Your task to perform on an android device: Open Reddit.com Image 0: 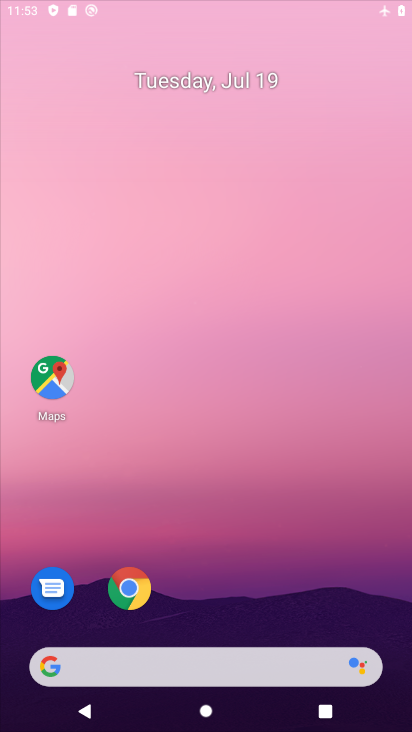
Step 0: click (223, 66)
Your task to perform on an android device: Open Reddit.com Image 1: 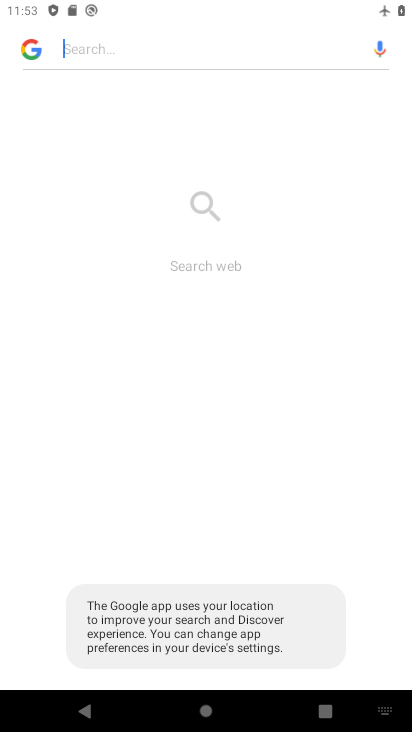
Step 1: press home button
Your task to perform on an android device: Open Reddit.com Image 2: 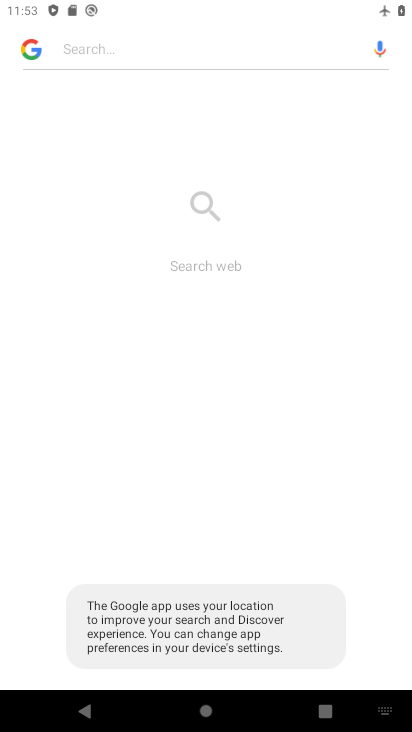
Step 2: press home button
Your task to perform on an android device: Open Reddit.com Image 3: 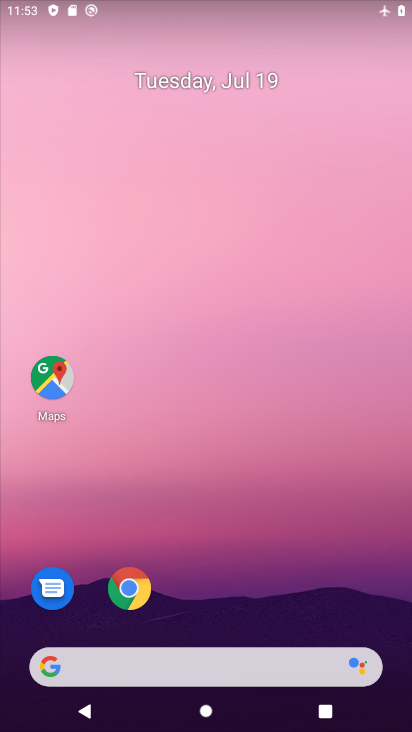
Step 3: click (124, 596)
Your task to perform on an android device: Open Reddit.com Image 4: 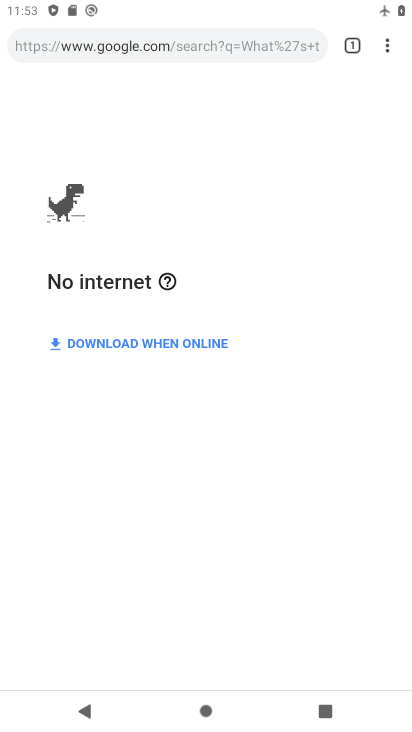
Step 4: click (384, 39)
Your task to perform on an android device: Open Reddit.com Image 5: 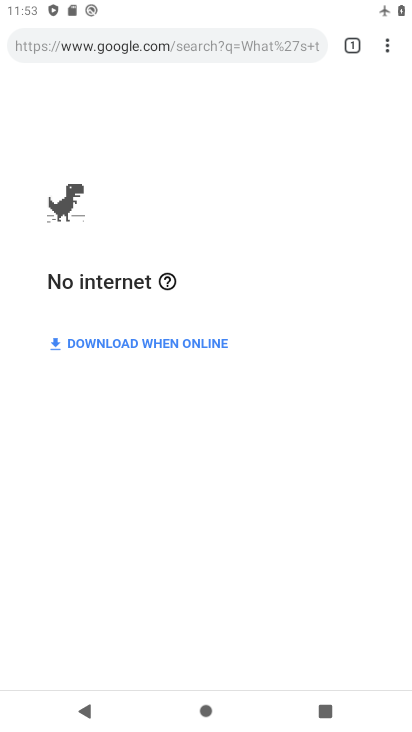
Step 5: click (400, 36)
Your task to perform on an android device: Open Reddit.com Image 6: 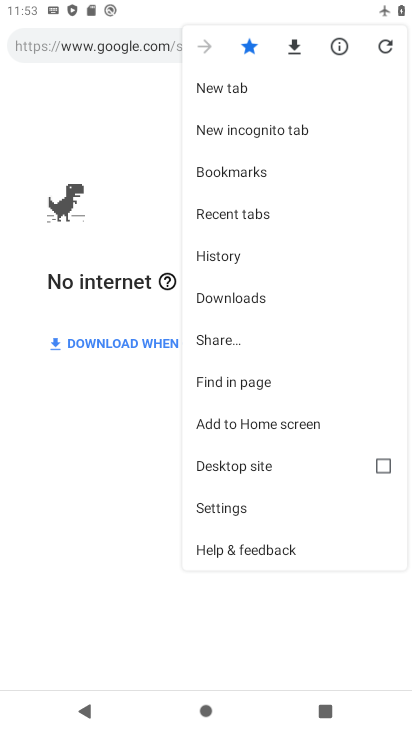
Step 6: click (230, 81)
Your task to perform on an android device: Open Reddit.com Image 7: 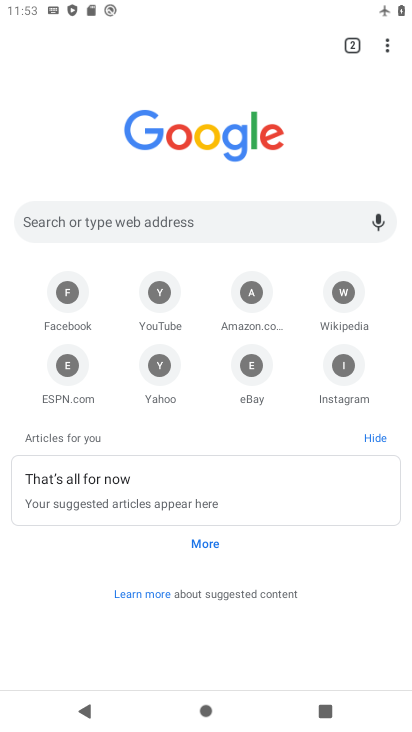
Step 7: click (198, 211)
Your task to perform on an android device: Open Reddit.com Image 8: 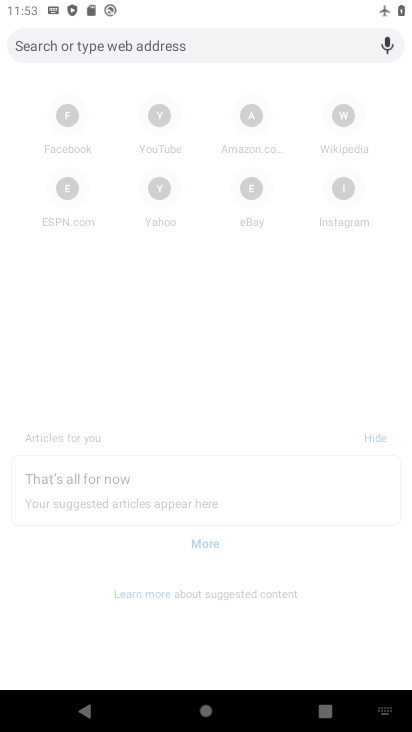
Step 8: type "Reddit.com "
Your task to perform on an android device: Open Reddit.com Image 9: 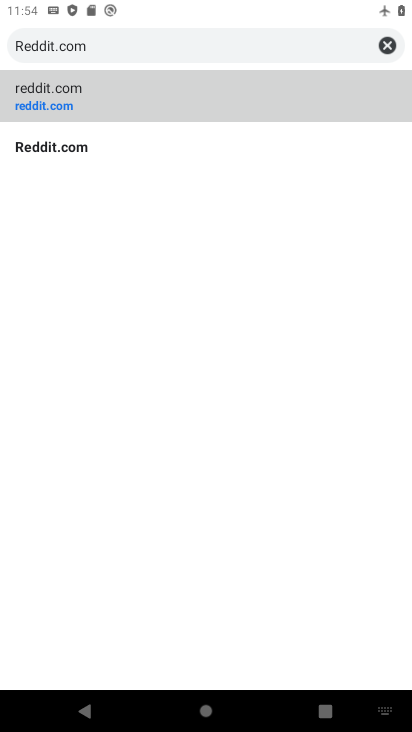
Step 9: click (289, 80)
Your task to perform on an android device: Open Reddit.com Image 10: 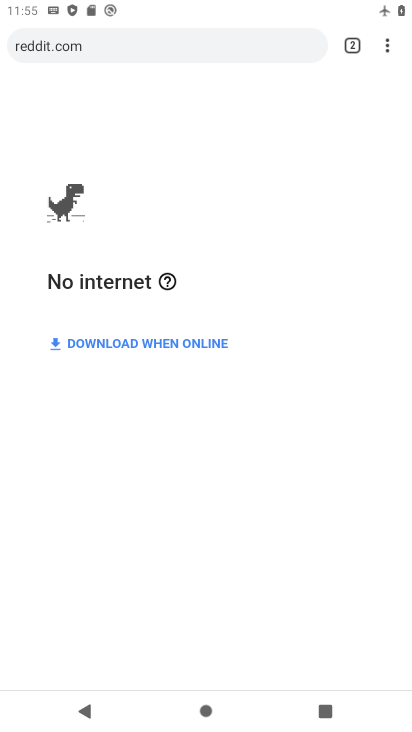
Step 10: task complete